Your task to perform on an android device: search for starred emails in the gmail app Image 0: 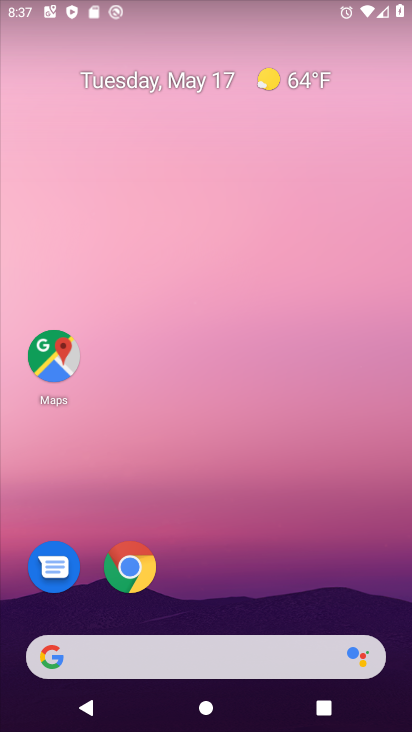
Step 0: drag from (351, 591) to (212, 99)
Your task to perform on an android device: search for starred emails in the gmail app Image 1: 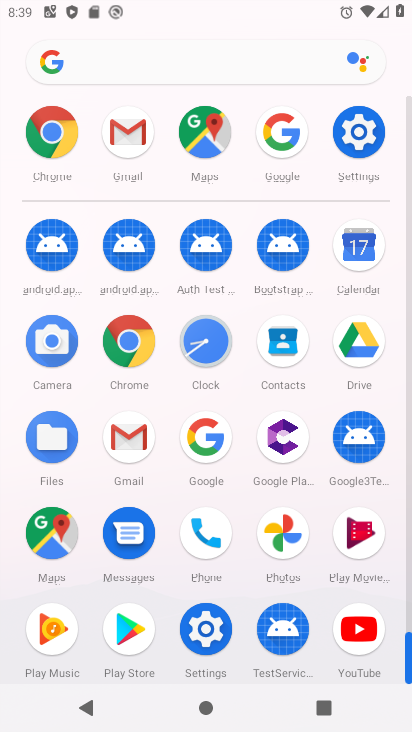
Step 1: click (141, 437)
Your task to perform on an android device: search for starred emails in the gmail app Image 2: 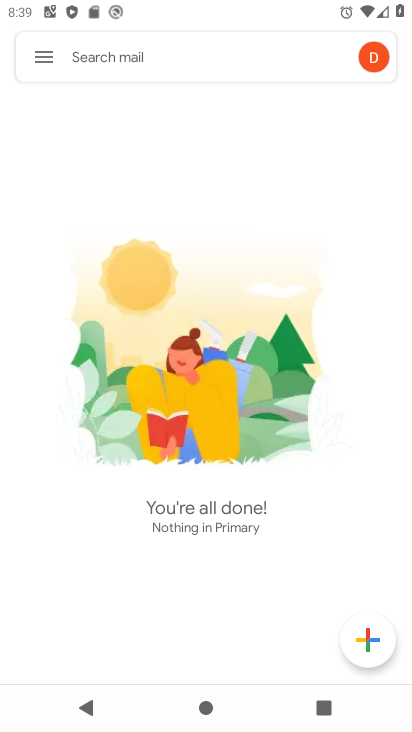
Step 2: click (41, 59)
Your task to perform on an android device: search for starred emails in the gmail app Image 3: 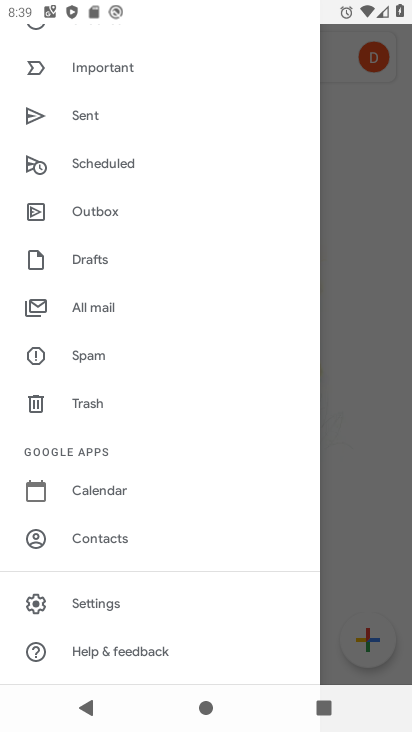
Step 3: drag from (103, 105) to (88, 456)
Your task to perform on an android device: search for starred emails in the gmail app Image 4: 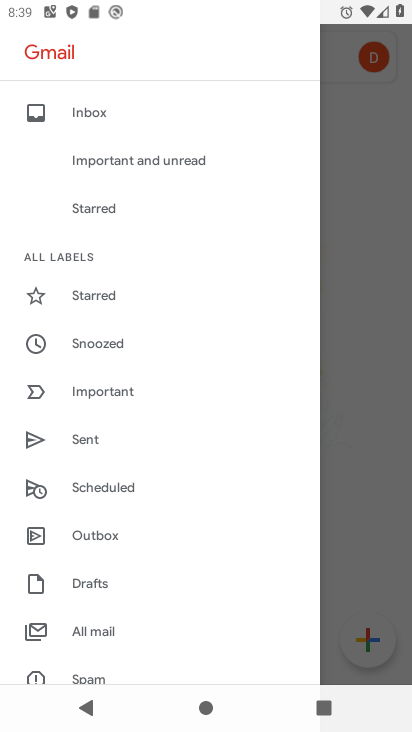
Step 4: click (104, 288)
Your task to perform on an android device: search for starred emails in the gmail app Image 5: 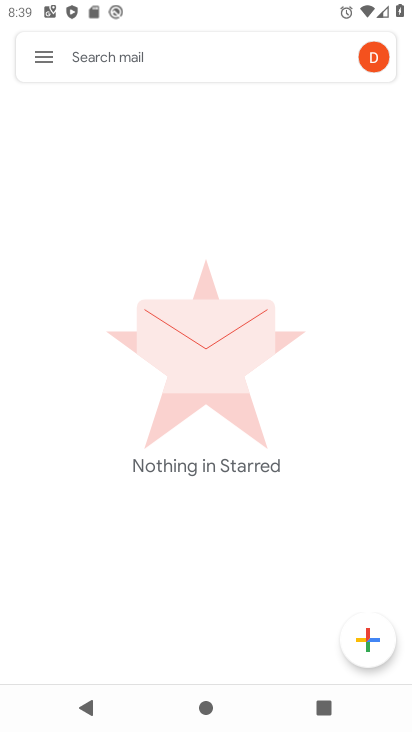
Step 5: task complete